Your task to perform on an android device: Empty the shopping cart on walmart. Image 0: 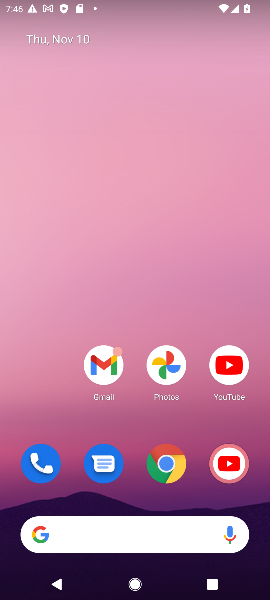
Step 0: click (171, 463)
Your task to perform on an android device: Empty the shopping cart on walmart. Image 1: 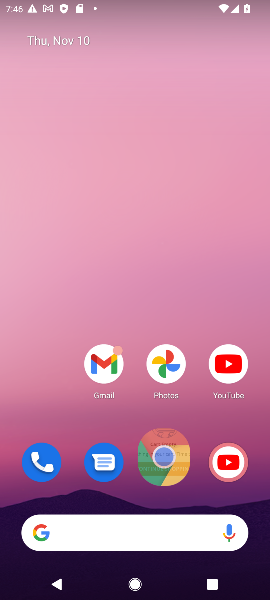
Step 1: click (171, 463)
Your task to perform on an android device: Empty the shopping cart on walmart. Image 2: 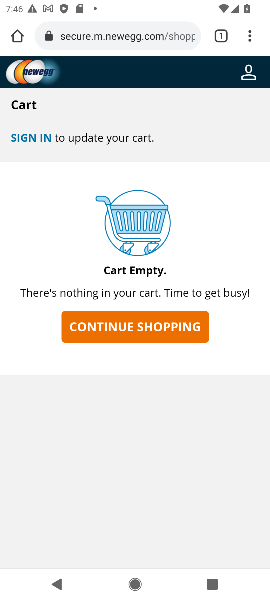
Step 2: click (147, 28)
Your task to perform on an android device: Empty the shopping cart on walmart. Image 3: 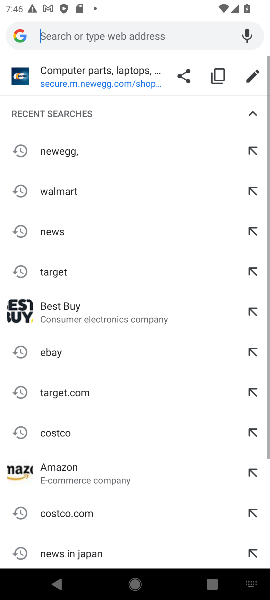
Step 3: click (52, 193)
Your task to perform on an android device: Empty the shopping cart on walmart. Image 4: 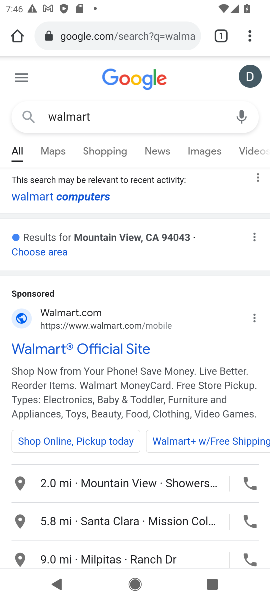
Step 4: drag from (50, 502) to (172, 166)
Your task to perform on an android device: Empty the shopping cart on walmart. Image 5: 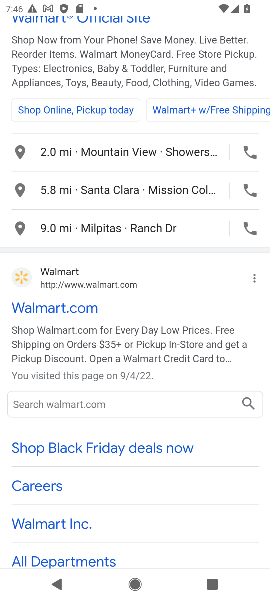
Step 5: click (47, 308)
Your task to perform on an android device: Empty the shopping cart on walmart. Image 6: 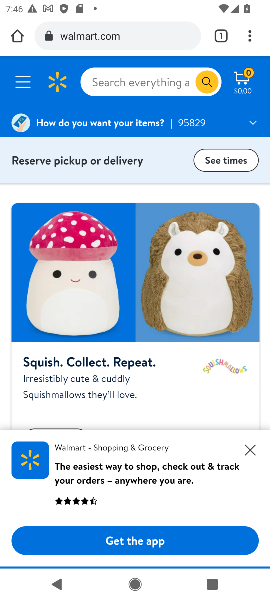
Step 6: click (239, 80)
Your task to perform on an android device: Empty the shopping cart on walmart. Image 7: 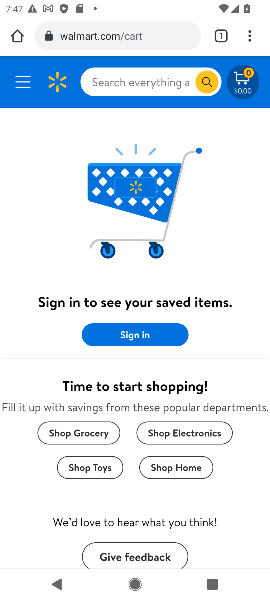
Step 7: task complete